Your task to perform on an android device: empty trash in the gmail app Image 0: 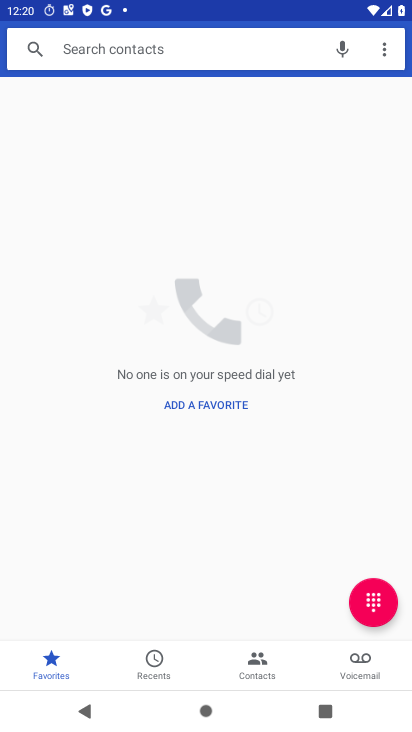
Step 0: press home button
Your task to perform on an android device: empty trash in the gmail app Image 1: 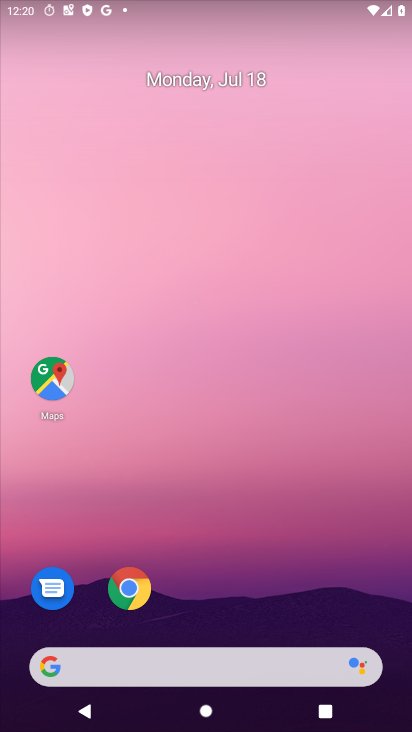
Step 1: drag from (271, 566) to (275, 154)
Your task to perform on an android device: empty trash in the gmail app Image 2: 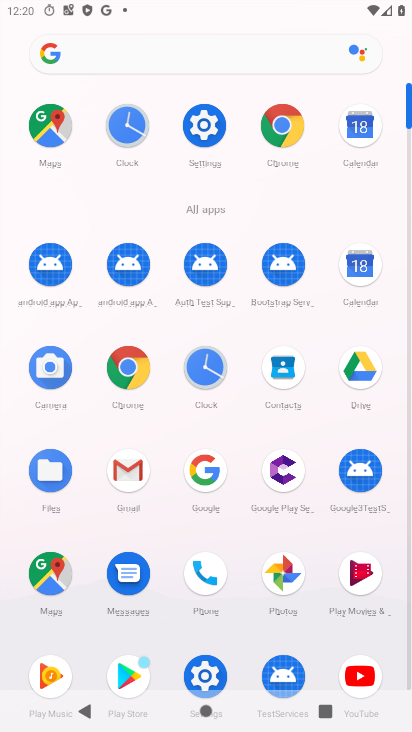
Step 2: click (127, 468)
Your task to perform on an android device: empty trash in the gmail app Image 3: 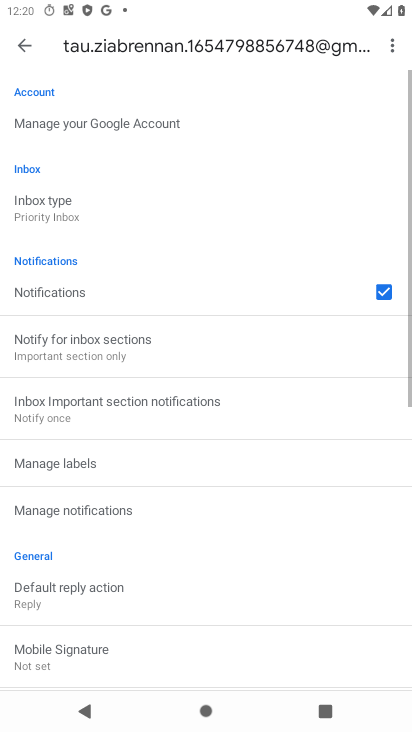
Step 3: click (24, 50)
Your task to perform on an android device: empty trash in the gmail app Image 4: 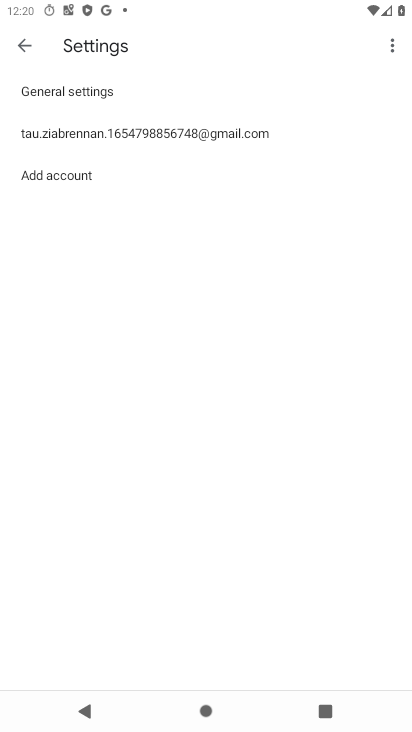
Step 4: click (24, 50)
Your task to perform on an android device: empty trash in the gmail app Image 5: 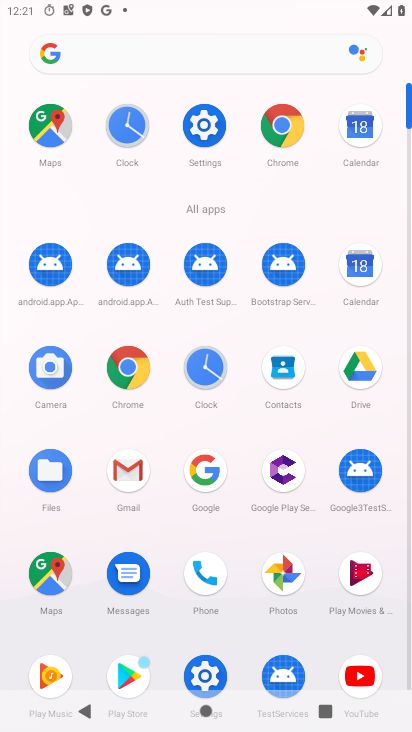
Step 5: click (141, 466)
Your task to perform on an android device: empty trash in the gmail app Image 6: 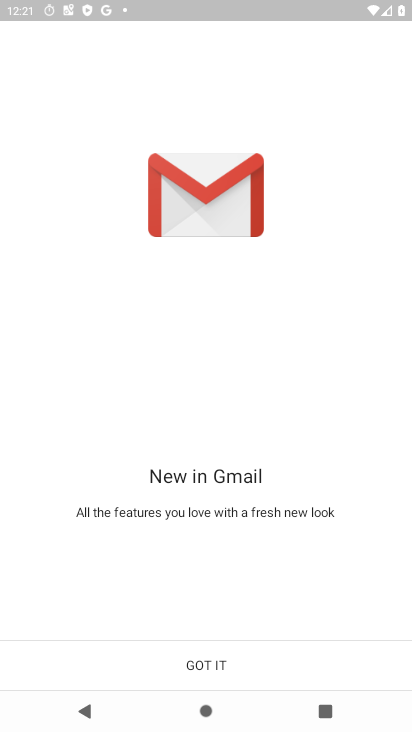
Step 6: click (317, 671)
Your task to perform on an android device: empty trash in the gmail app Image 7: 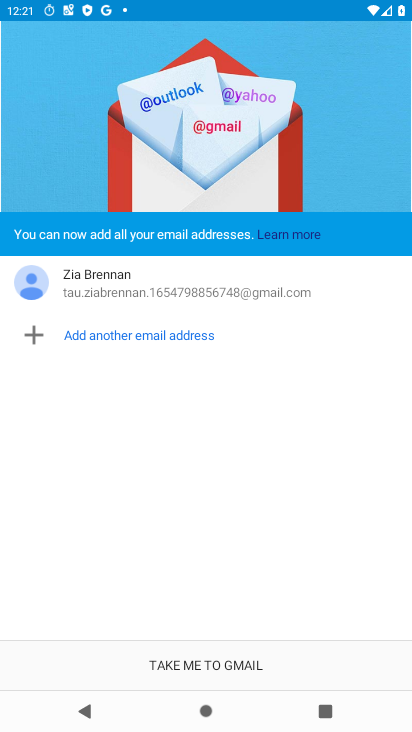
Step 7: click (317, 671)
Your task to perform on an android device: empty trash in the gmail app Image 8: 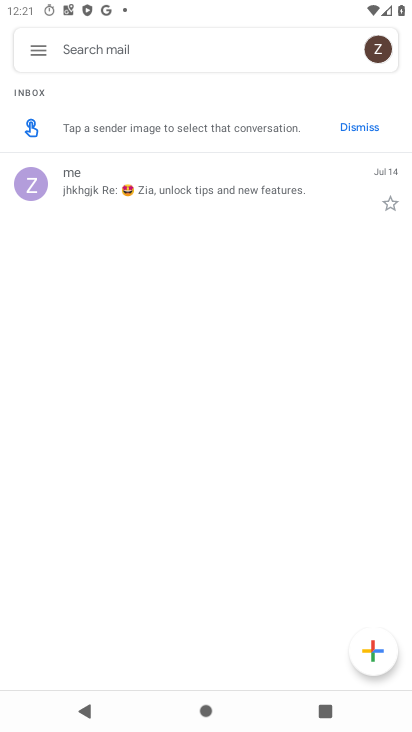
Step 8: click (34, 50)
Your task to perform on an android device: empty trash in the gmail app Image 9: 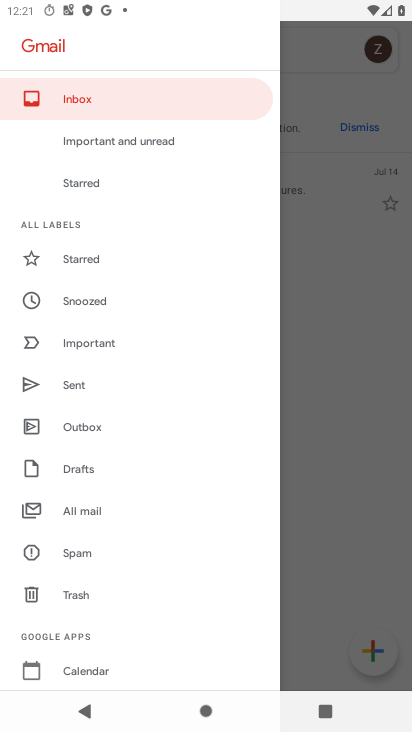
Step 9: click (86, 604)
Your task to perform on an android device: empty trash in the gmail app Image 10: 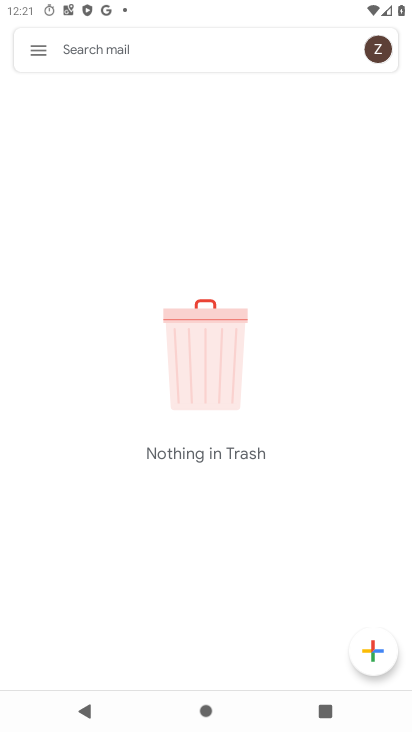
Step 10: task complete